Your task to perform on an android device: turn notification dots off Image 0: 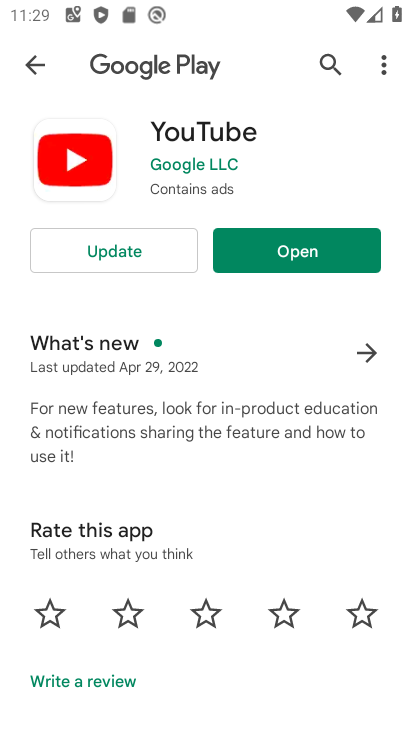
Step 0: press home button
Your task to perform on an android device: turn notification dots off Image 1: 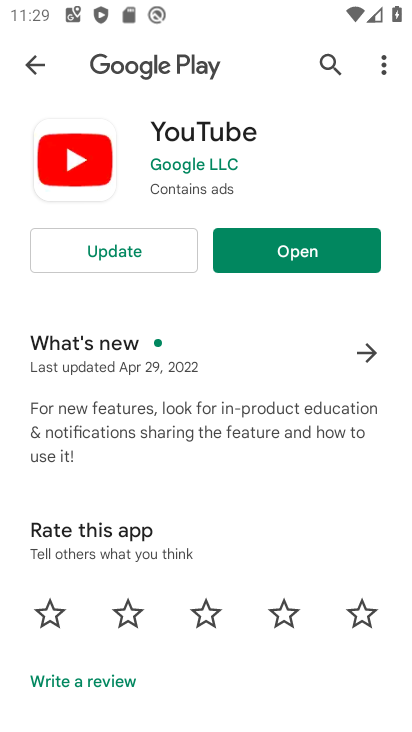
Step 1: press home button
Your task to perform on an android device: turn notification dots off Image 2: 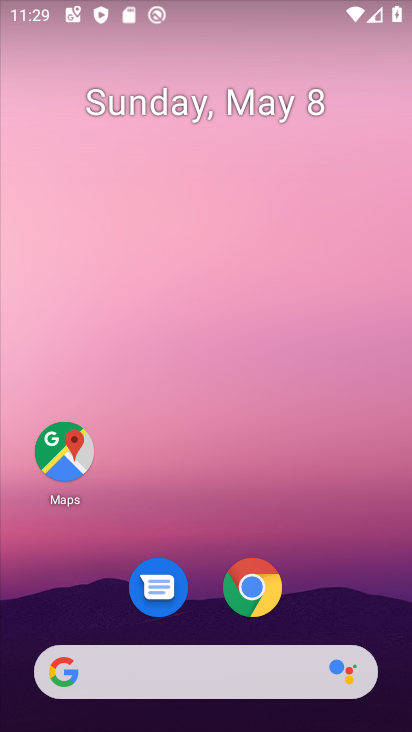
Step 2: drag from (370, 615) to (227, 157)
Your task to perform on an android device: turn notification dots off Image 3: 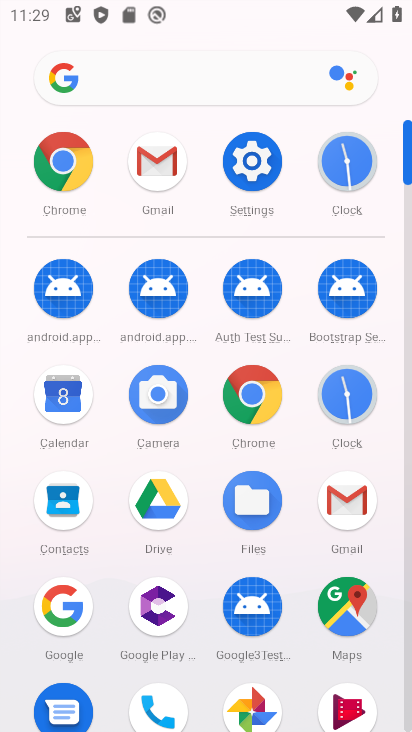
Step 3: click (245, 167)
Your task to perform on an android device: turn notification dots off Image 4: 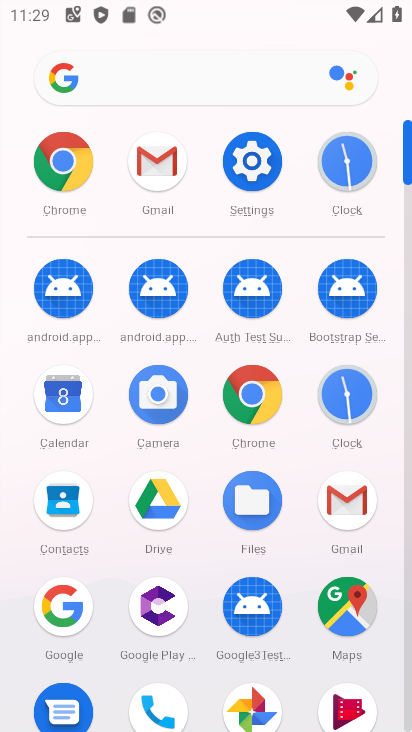
Step 4: click (245, 167)
Your task to perform on an android device: turn notification dots off Image 5: 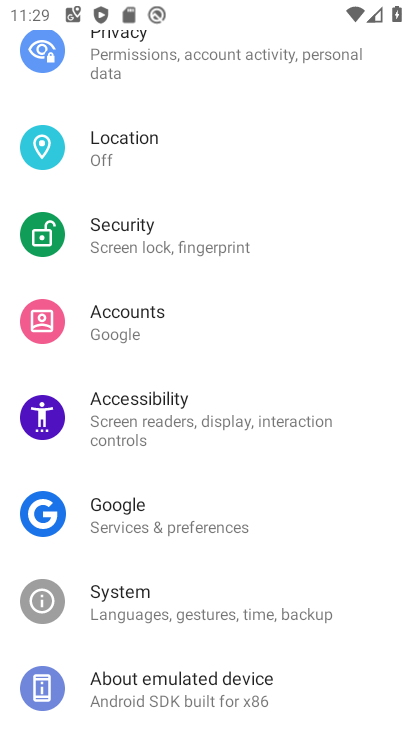
Step 5: click (245, 168)
Your task to perform on an android device: turn notification dots off Image 6: 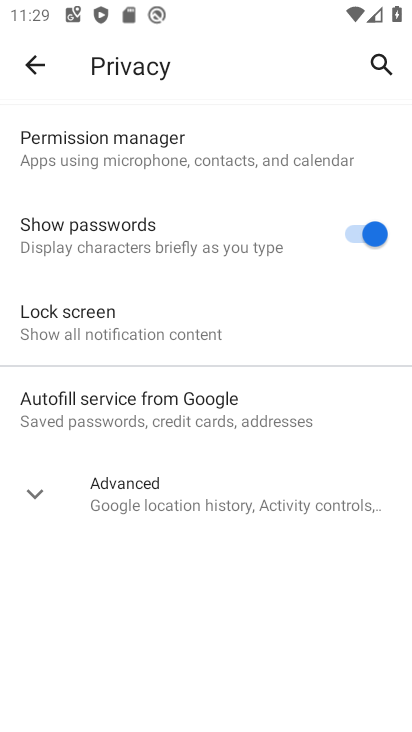
Step 6: click (34, 62)
Your task to perform on an android device: turn notification dots off Image 7: 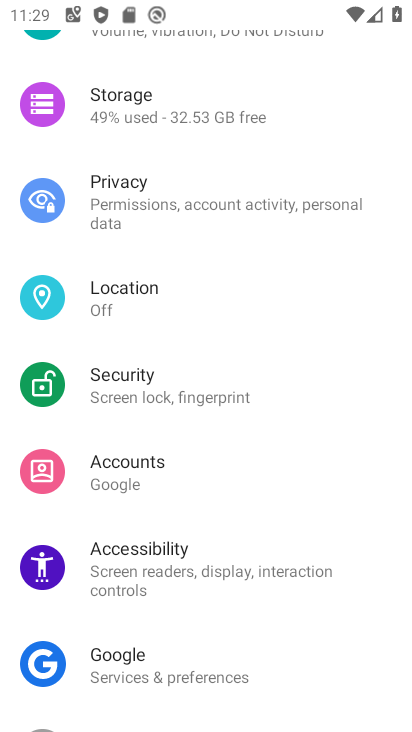
Step 7: drag from (229, 602) to (171, 274)
Your task to perform on an android device: turn notification dots off Image 8: 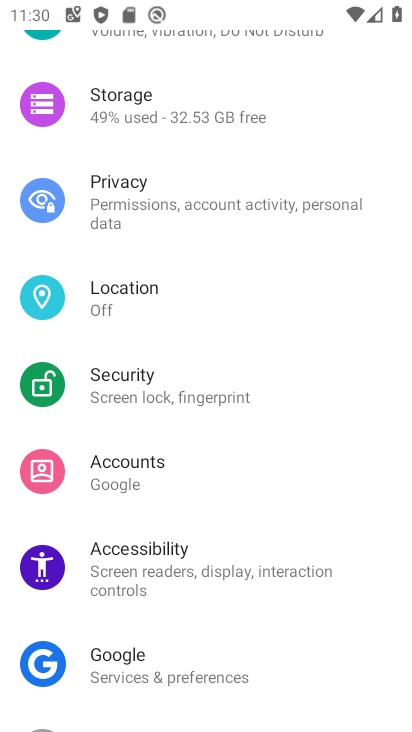
Step 8: drag from (210, 613) to (285, 602)
Your task to perform on an android device: turn notification dots off Image 9: 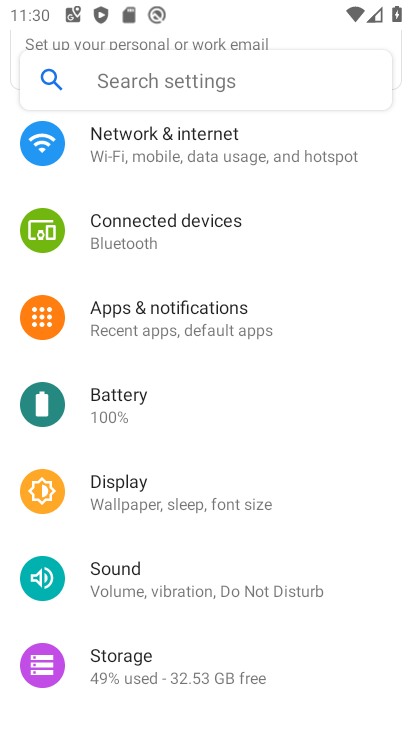
Step 9: drag from (244, 251) to (316, 604)
Your task to perform on an android device: turn notification dots off Image 10: 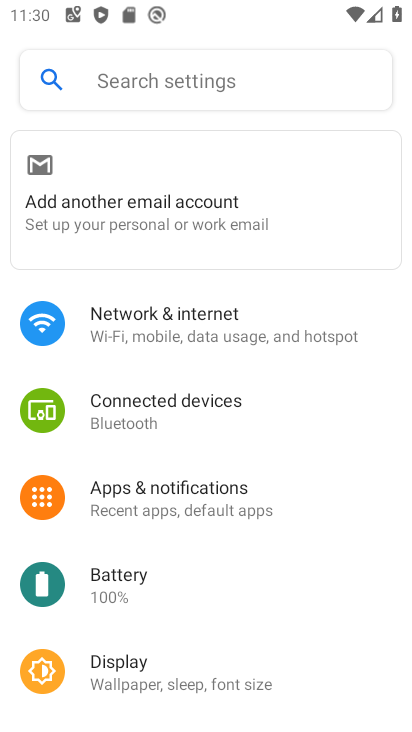
Step 10: click (163, 495)
Your task to perform on an android device: turn notification dots off Image 11: 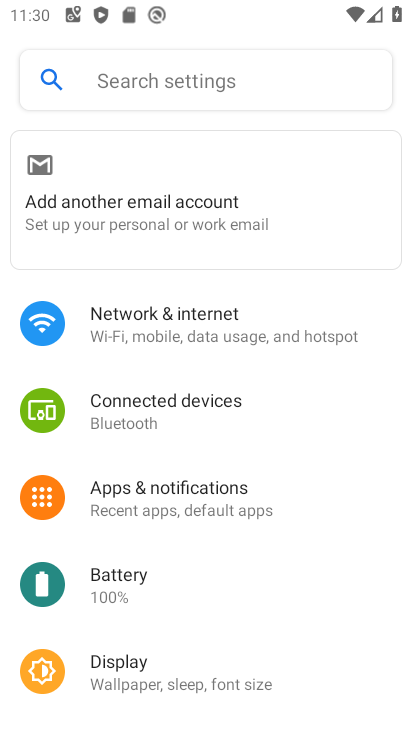
Step 11: click (163, 500)
Your task to perform on an android device: turn notification dots off Image 12: 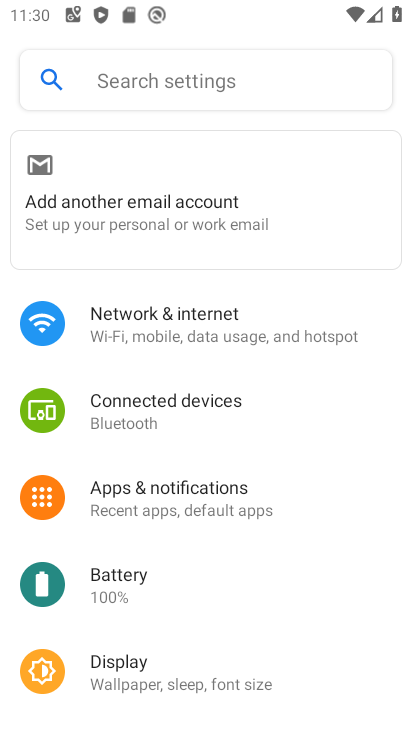
Step 12: click (163, 500)
Your task to perform on an android device: turn notification dots off Image 13: 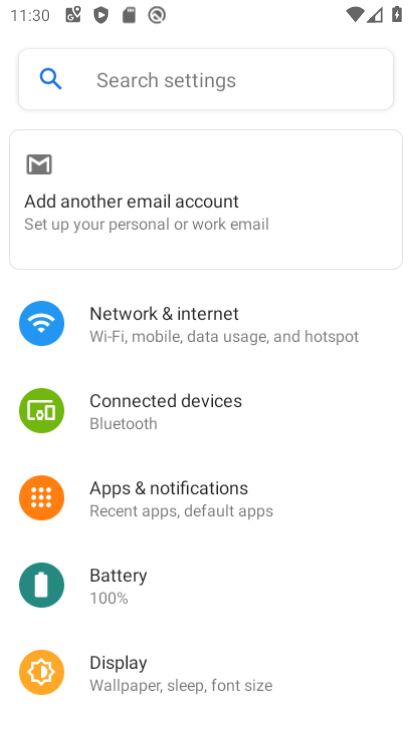
Step 13: click (158, 498)
Your task to perform on an android device: turn notification dots off Image 14: 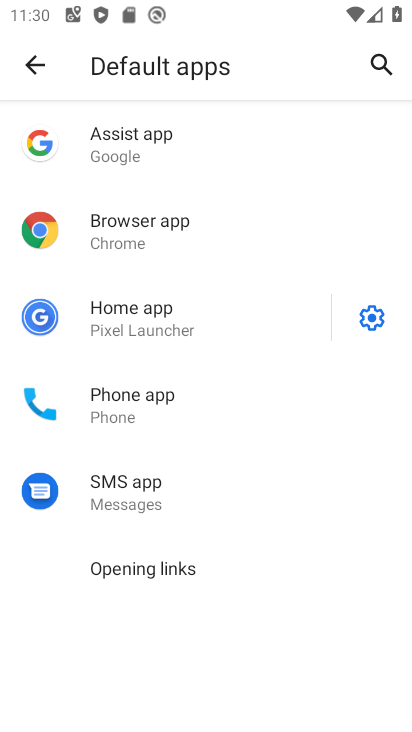
Step 14: click (39, 69)
Your task to perform on an android device: turn notification dots off Image 15: 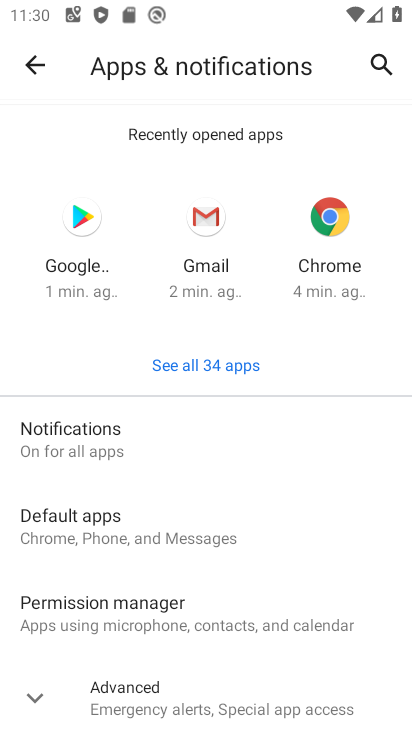
Step 15: click (133, 700)
Your task to perform on an android device: turn notification dots off Image 16: 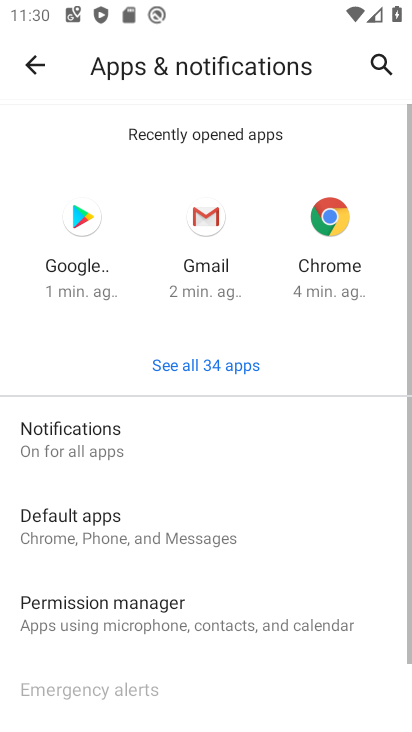
Step 16: click (132, 686)
Your task to perform on an android device: turn notification dots off Image 17: 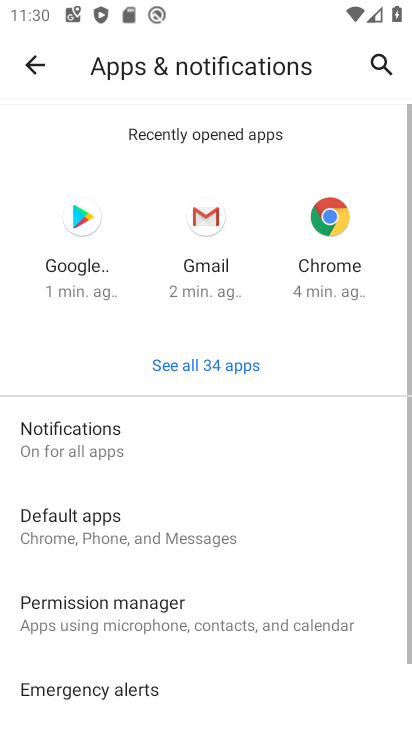
Step 17: drag from (163, 621) to (133, 198)
Your task to perform on an android device: turn notification dots off Image 18: 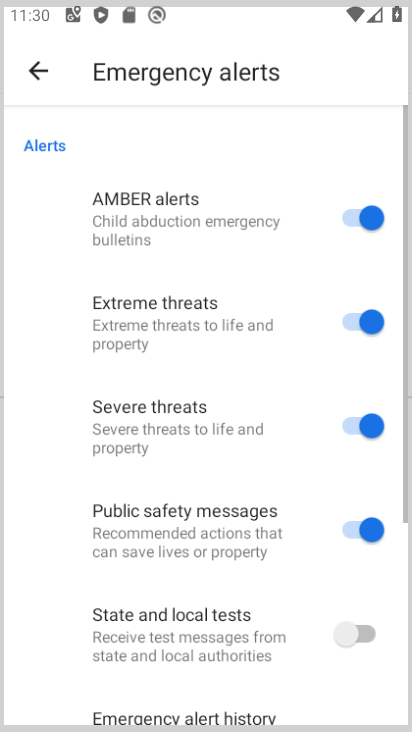
Step 18: drag from (212, 563) to (193, 136)
Your task to perform on an android device: turn notification dots off Image 19: 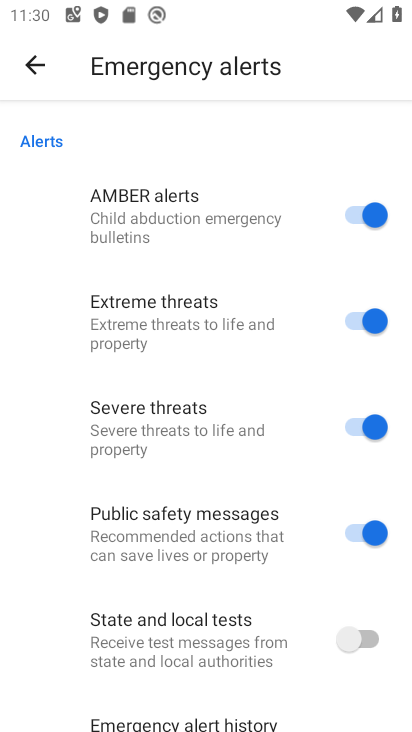
Step 19: click (26, 68)
Your task to perform on an android device: turn notification dots off Image 20: 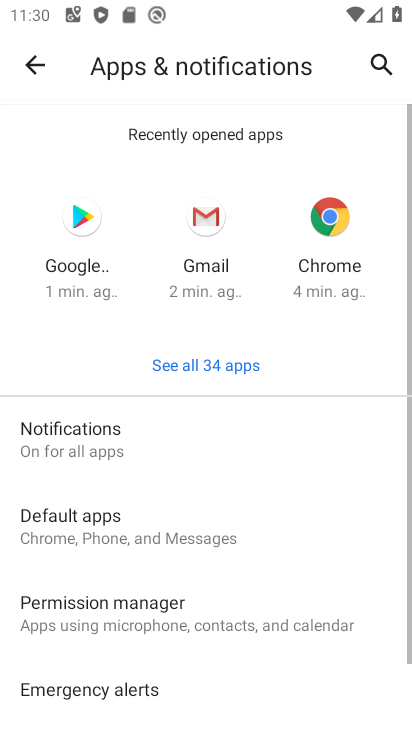
Step 20: drag from (148, 582) to (101, 406)
Your task to perform on an android device: turn notification dots off Image 21: 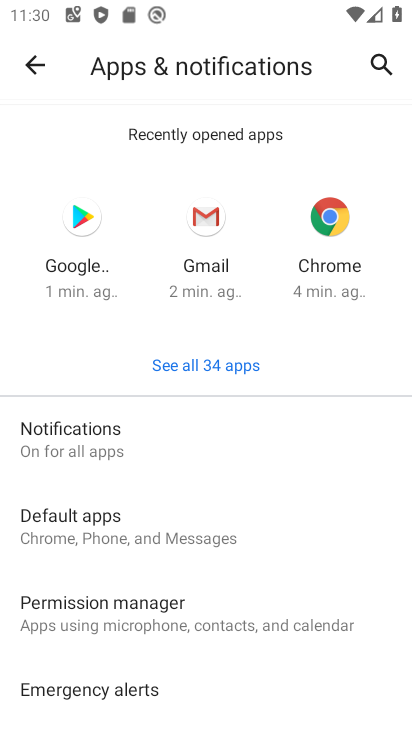
Step 21: drag from (181, 635) to (170, 247)
Your task to perform on an android device: turn notification dots off Image 22: 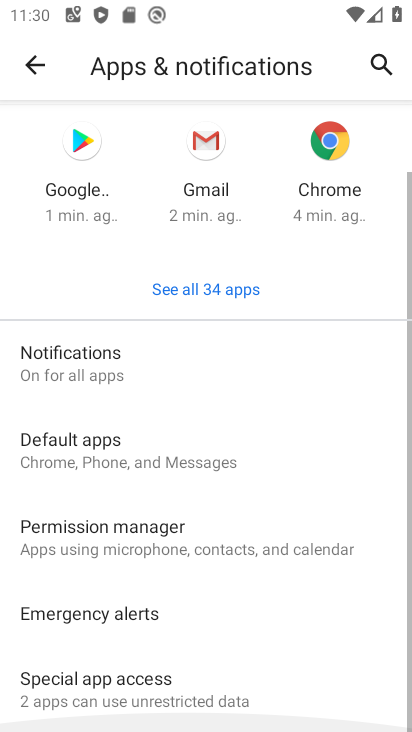
Step 22: drag from (191, 668) to (195, 304)
Your task to perform on an android device: turn notification dots off Image 23: 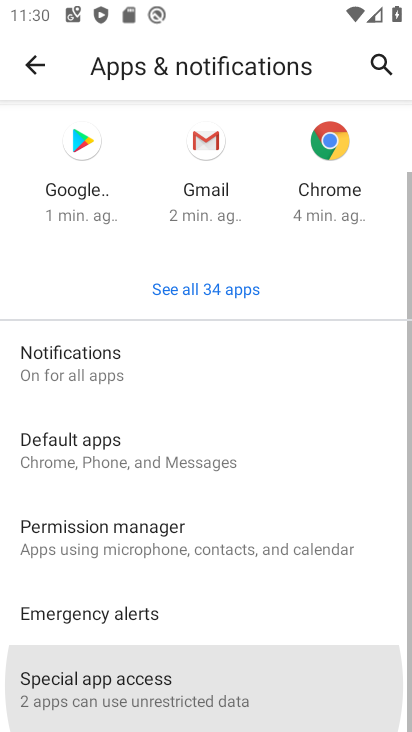
Step 23: drag from (249, 678) to (246, 225)
Your task to perform on an android device: turn notification dots off Image 24: 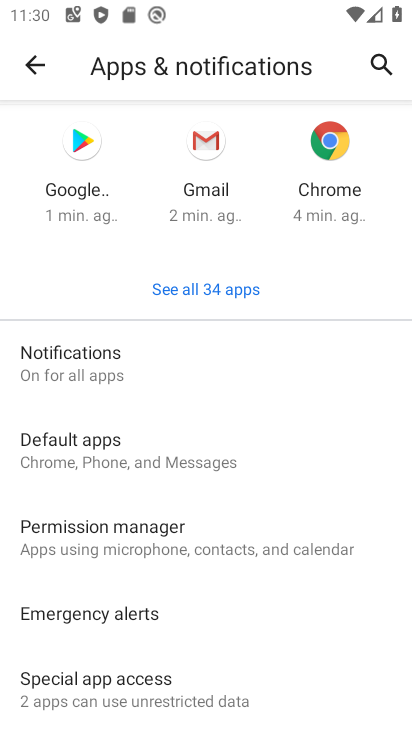
Step 24: drag from (196, 618) to (223, 142)
Your task to perform on an android device: turn notification dots off Image 25: 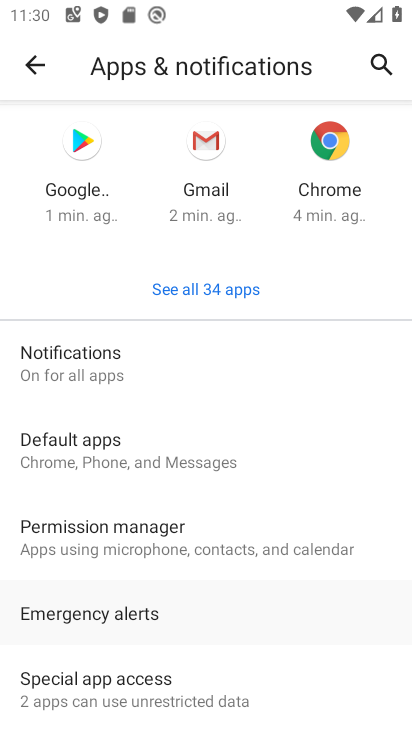
Step 25: drag from (213, 566) to (139, 71)
Your task to perform on an android device: turn notification dots off Image 26: 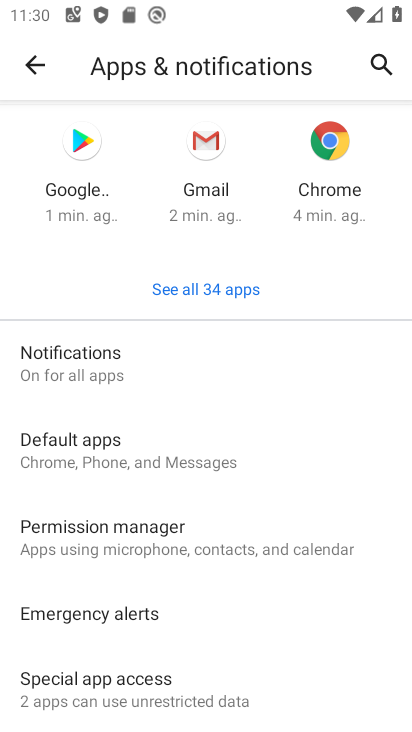
Step 26: click (60, 363)
Your task to perform on an android device: turn notification dots off Image 27: 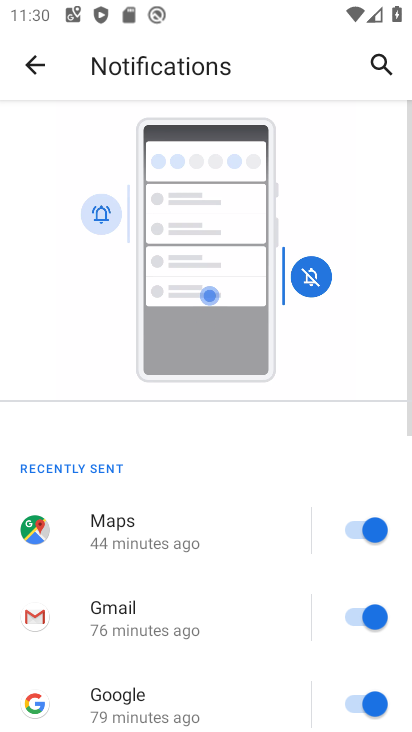
Step 27: drag from (224, 649) to (230, 261)
Your task to perform on an android device: turn notification dots off Image 28: 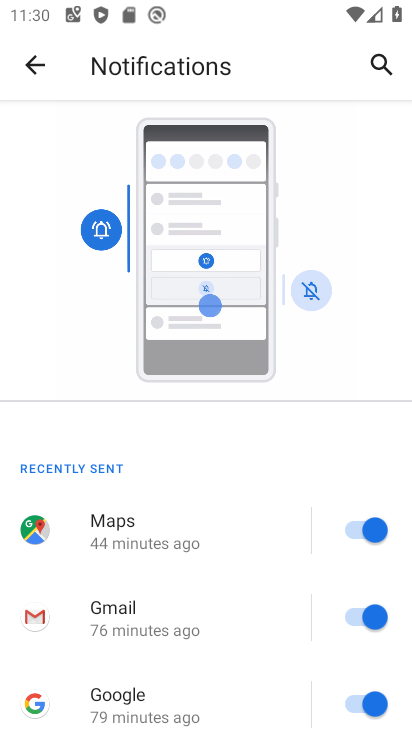
Step 28: drag from (247, 534) to (198, 115)
Your task to perform on an android device: turn notification dots off Image 29: 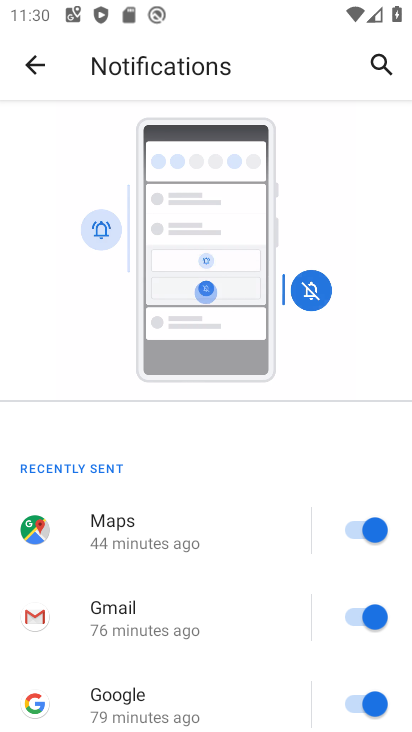
Step 29: drag from (146, 611) to (152, 217)
Your task to perform on an android device: turn notification dots off Image 30: 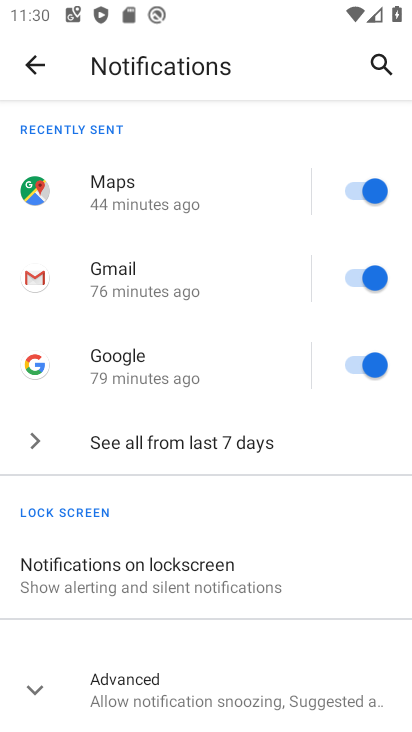
Step 30: click (118, 685)
Your task to perform on an android device: turn notification dots off Image 31: 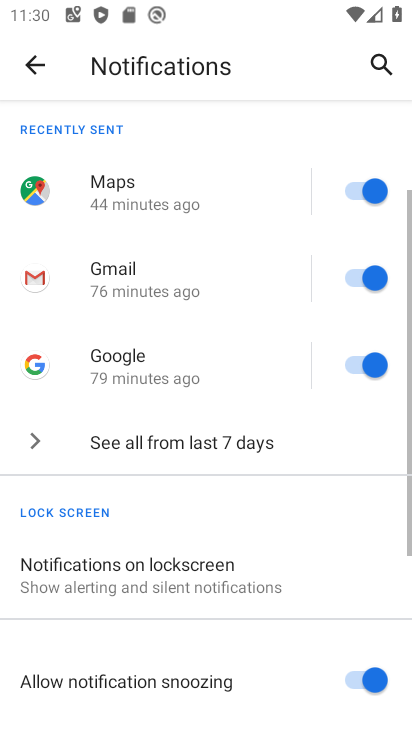
Step 31: drag from (176, 676) to (132, 135)
Your task to perform on an android device: turn notification dots off Image 32: 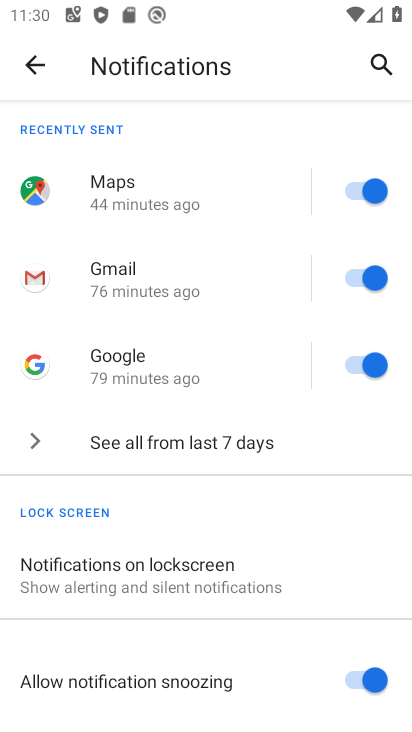
Step 32: drag from (238, 564) to (125, 148)
Your task to perform on an android device: turn notification dots off Image 33: 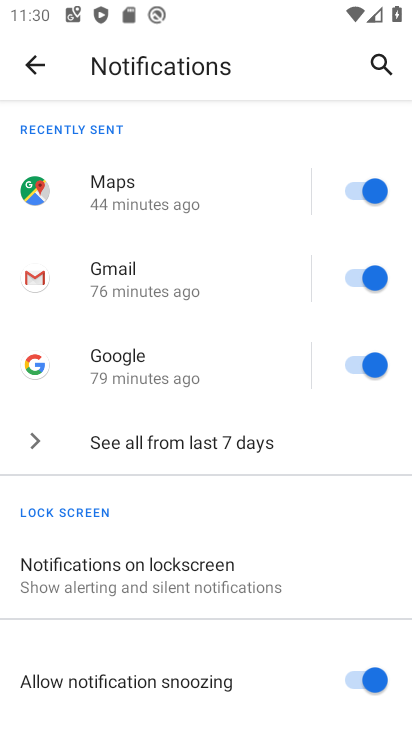
Step 33: drag from (191, 559) to (118, 234)
Your task to perform on an android device: turn notification dots off Image 34: 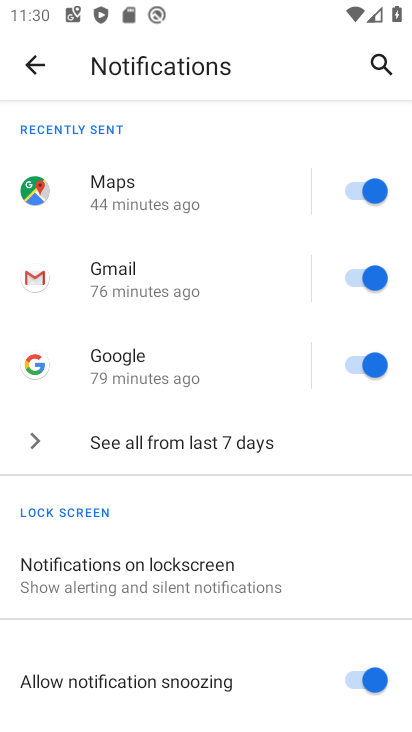
Step 34: drag from (189, 560) to (131, 95)
Your task to perform on an android device: turn notification dots off Image 35: 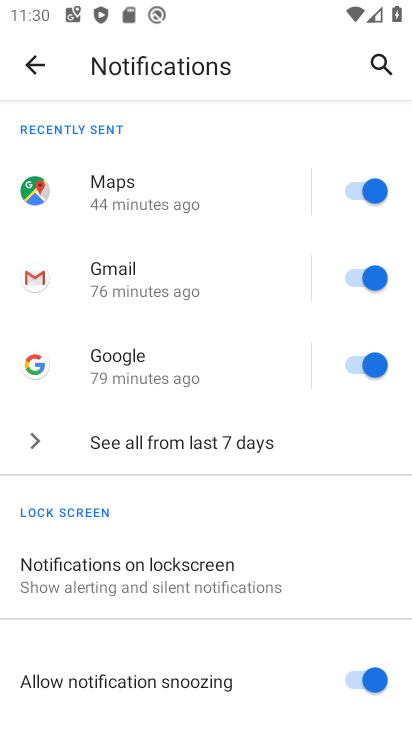
Step 35: drag from (215, 505) to (213, 83)
Your task to perform on an android device: turn notification dots off Image 36: 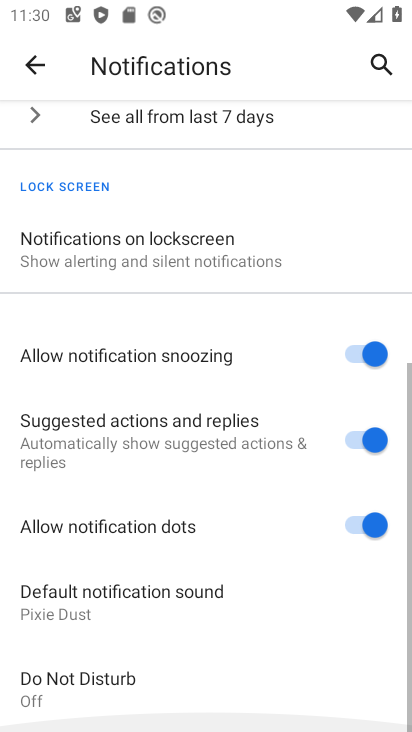
Step 36: drag from (172, 551) to (313, 107)
Your task to perform on an android device: turn notification dots off Image 37: 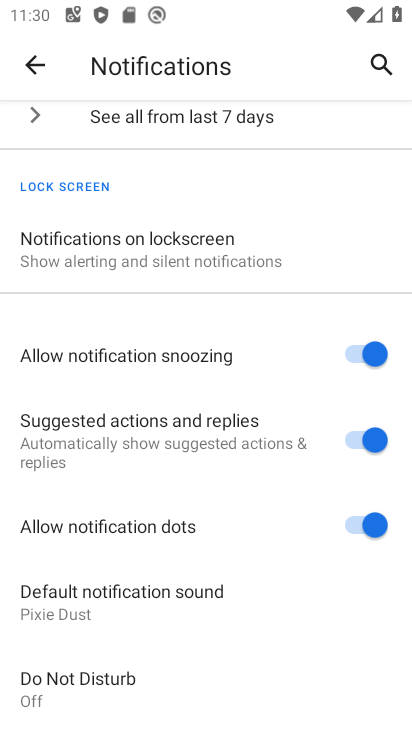
Step 37: click (372, 519)
Your task to perform on an android device: turn notification dots off Image 38: 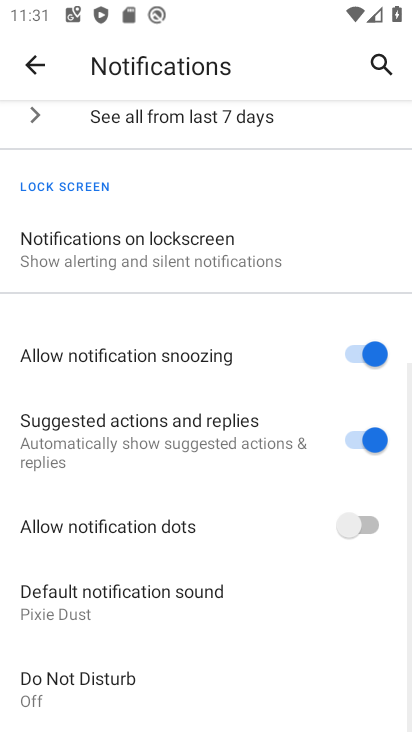
Step 38: task complete